Your task to perform on an android device: Open ESPN.com Image 0: 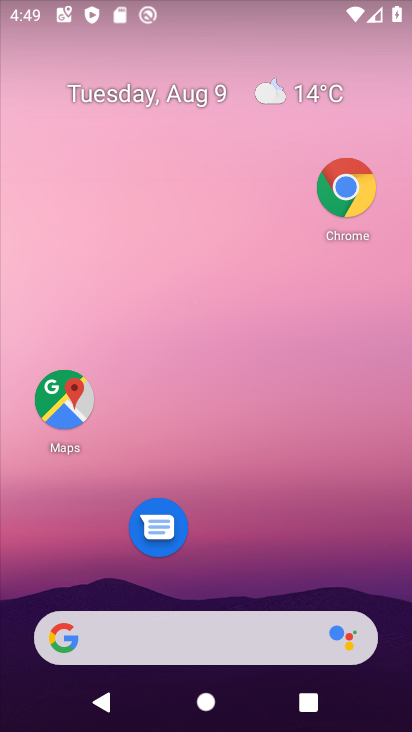
Step 0: click (361, 194)
Your task to perform on an android device: Open ESPN.com Image 1: 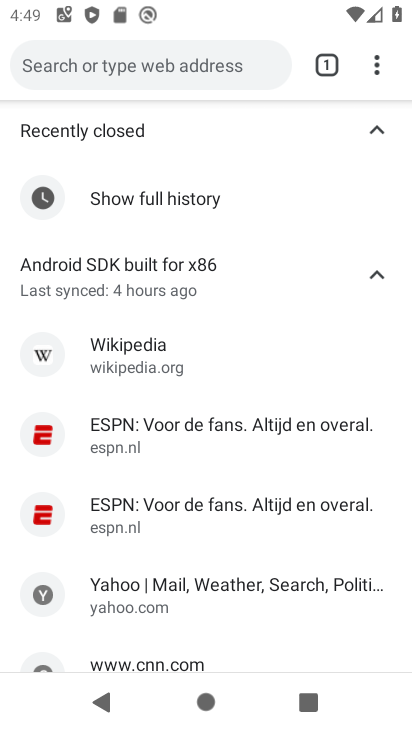
Step 1: click (326, 66)
Your task to perform on an android device: Open ESPN.com Image 2: 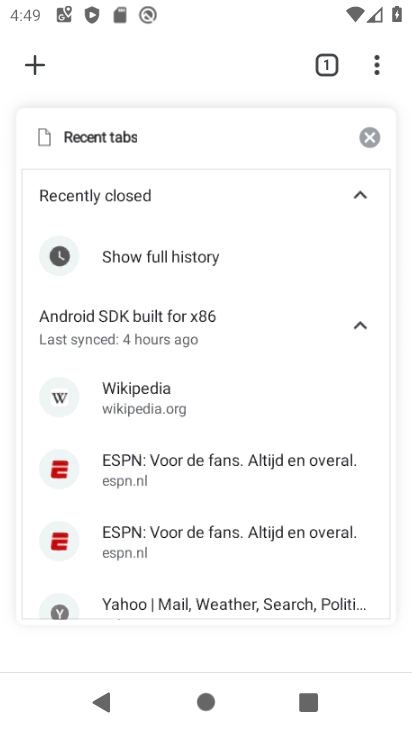
Step 2: click (41, 71)
Your task to perform on an android device: Open ESPN.com Image 3: 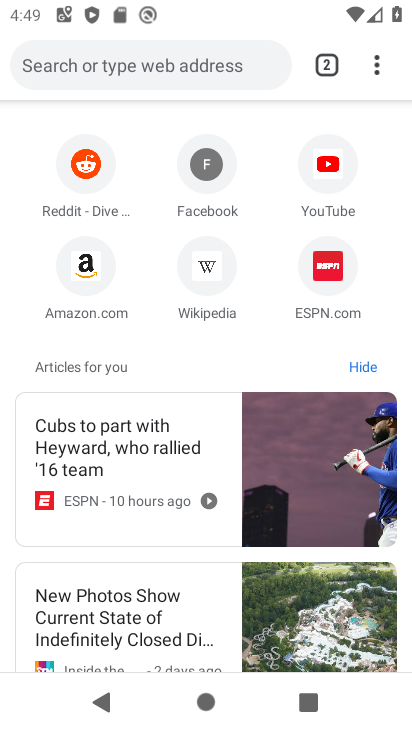
Step 3: click (334, 261)
Your task to perform on an android device: Open ESPN.com Image 4: 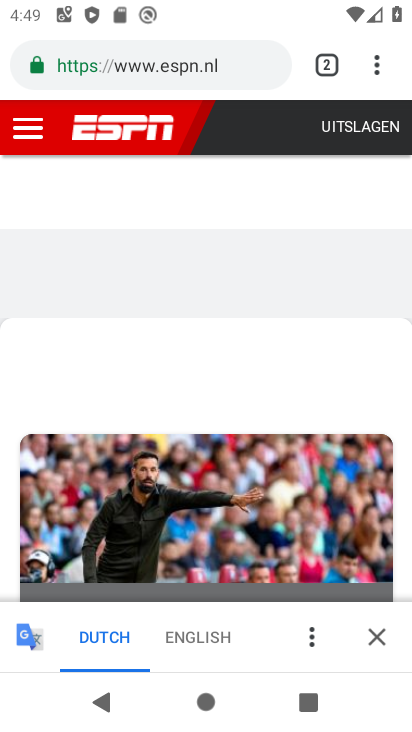
Step 4: task complete